Your task to perform on an android device: find which apps use the phone's location Image 0: 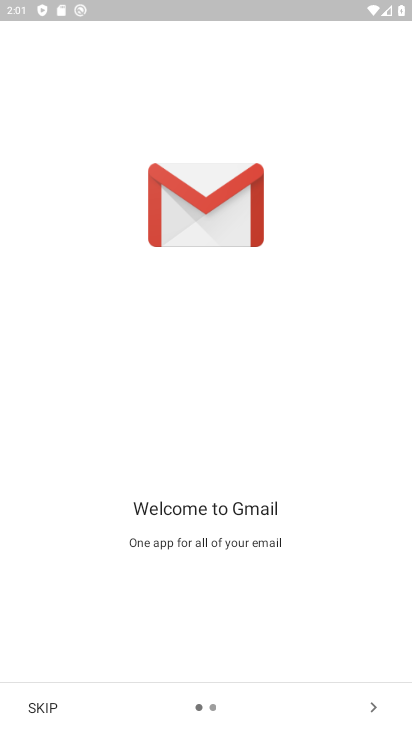
Step 0: press home button
Your task to perform on an android device: find which apps use the phone's location Image 1: 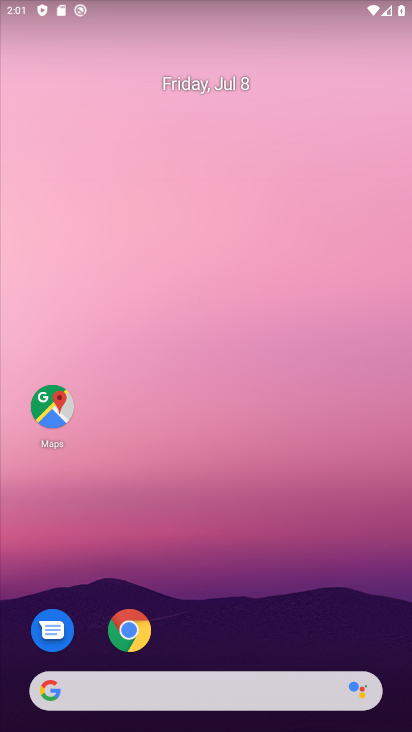
Step 1: drag from (275, 578) to (270, 153)
Your task to perform on an android device: find which apps use the phone's location Image 2: 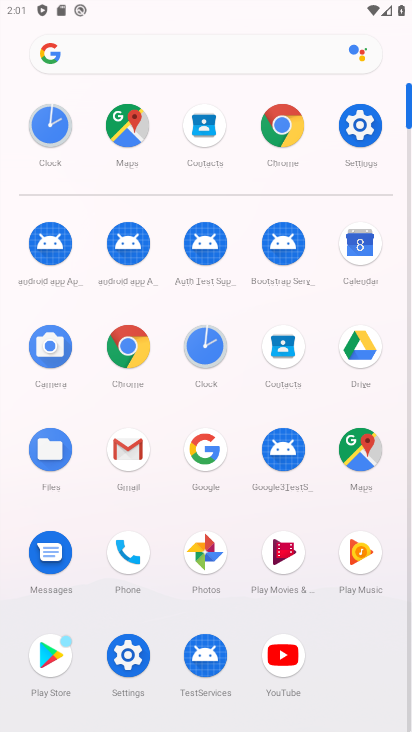
Step 2: click (356, 125)
Your task to perform on an android device: find which apps use the phone's location Image 3: 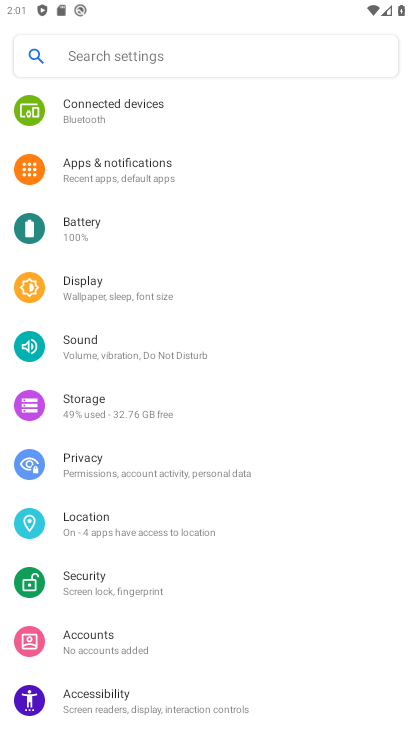
Step 3: click (123, 516)
Your task to perform on an android device: find which apps use the phone's location Image 4: 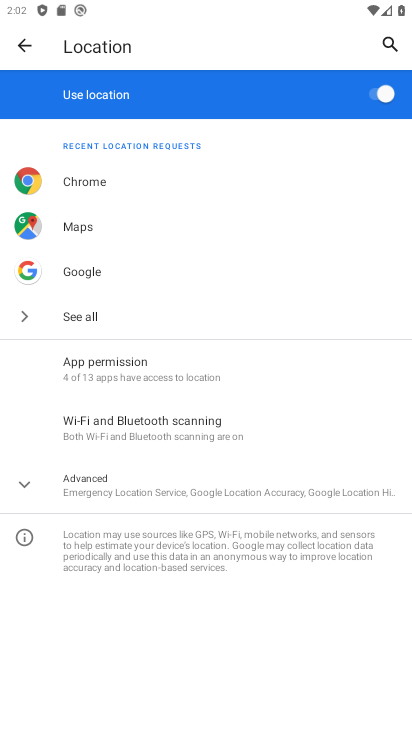
Step 4: click (132, 378)
Your task to perform on an android device: find which apps use the phone's location Image 5: 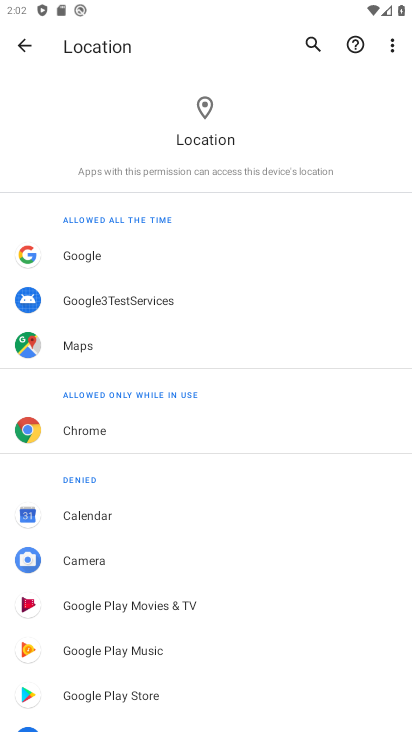
Step 5: task complete